Your task to perform on an android device: Search for sushi restaurants on Maps Image 0: 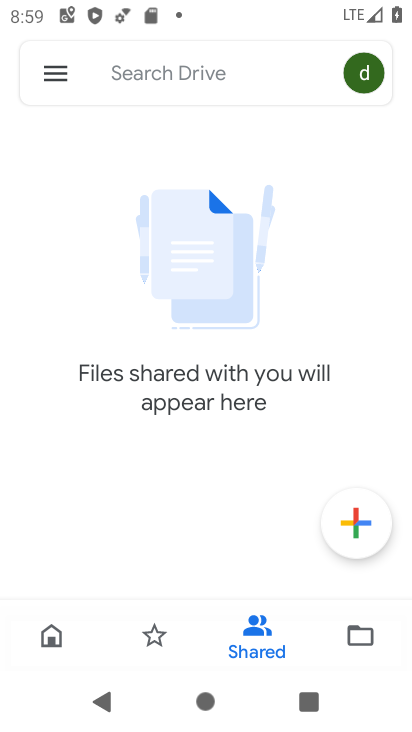
Step 0: press home button
Your task to perform on an android device: Search for sushi restaurants on Maps Image 1: 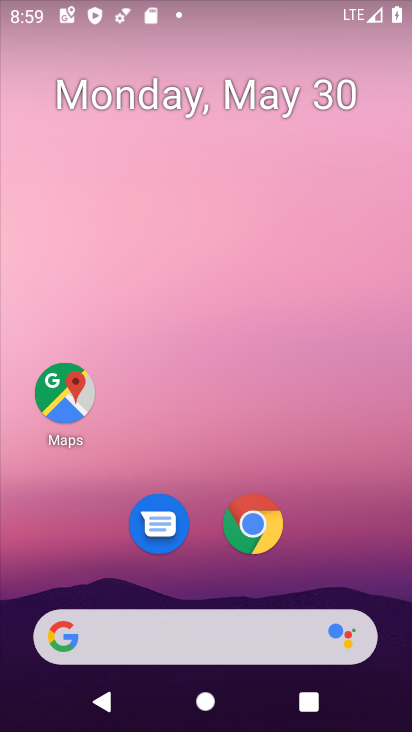
Step 1: click (54, 395)
Your task to perform on an android device: Search for sushi restaurants on Maps Image 2: 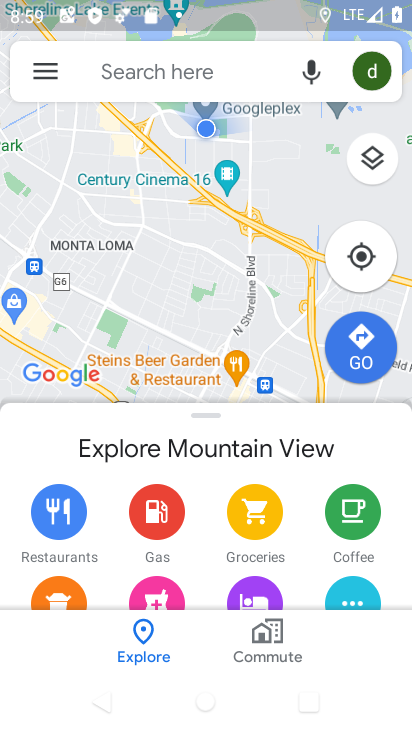
Step 2: click (175, 60)
Your task to perform on an android device: Search for sushi restaurants on Maps Image 3: 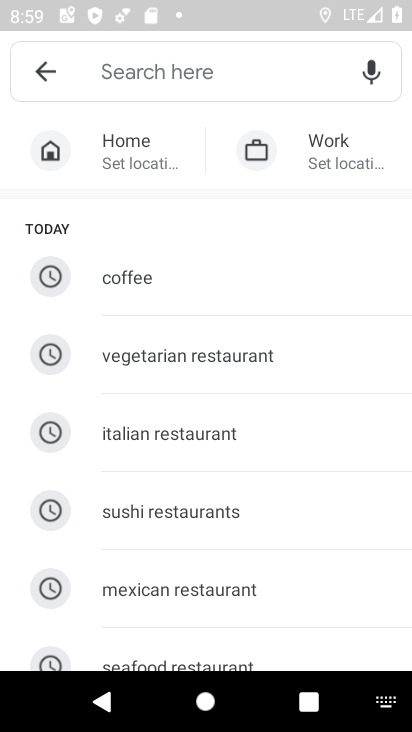
Step 3: click (233, 515)
Your task to perform on an android device: Search for sushi restaurants on Maps Image 4: 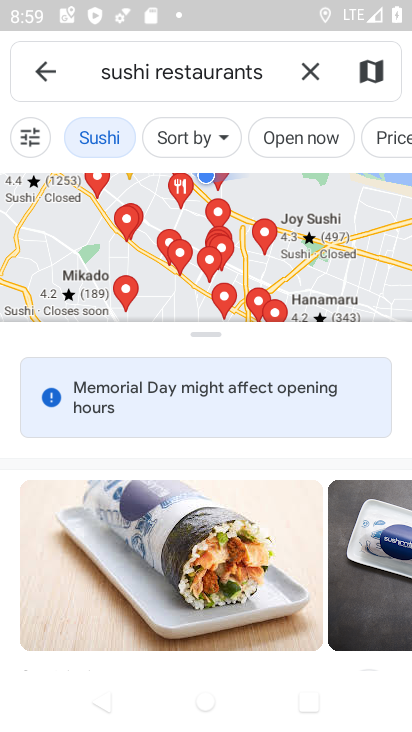
Step 4: task complete